Your task to perform on an android device: Open notification settings Image 0: 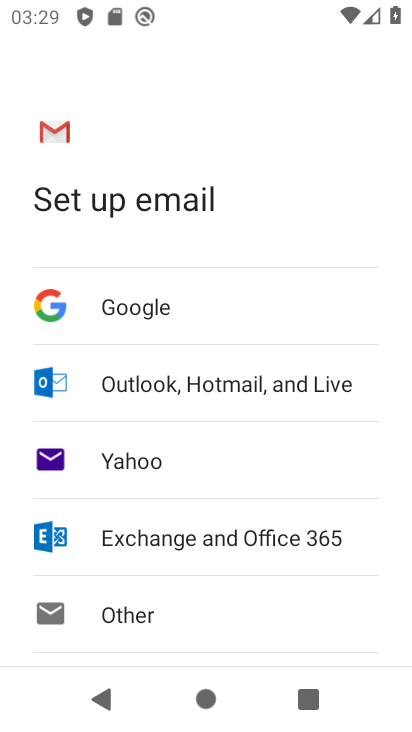
Step 0: press home button
Your task to perform on an android device: Open notification settings Image 1: 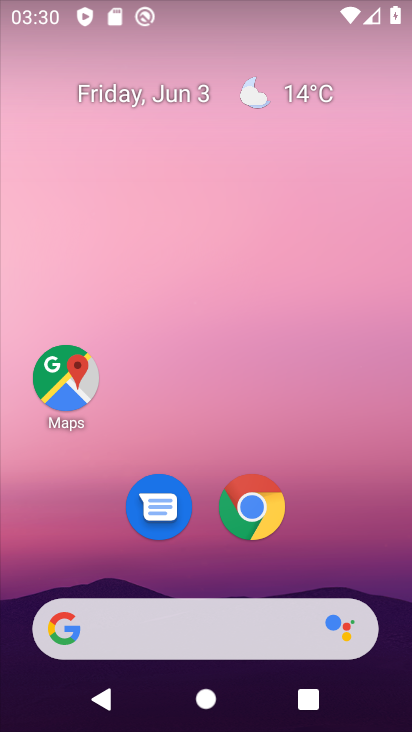
Step 1: drag from (237, 581) to (275, 218)
Your task to perform on an android device: Open notification settings Image 2: 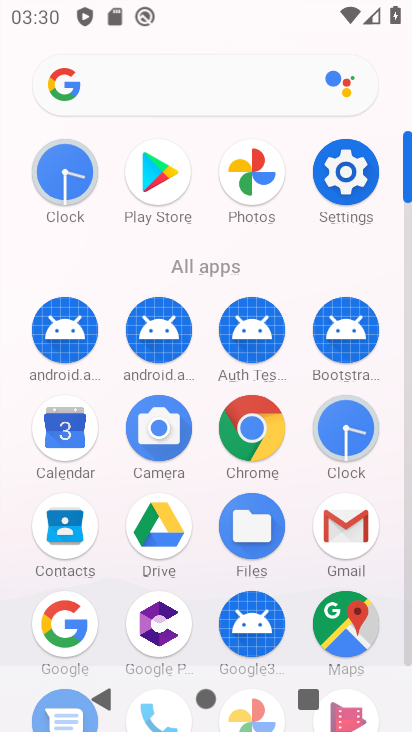
Step 2: click (348, 184)
Your task to perform on an android device: Open notification settings Image 3: 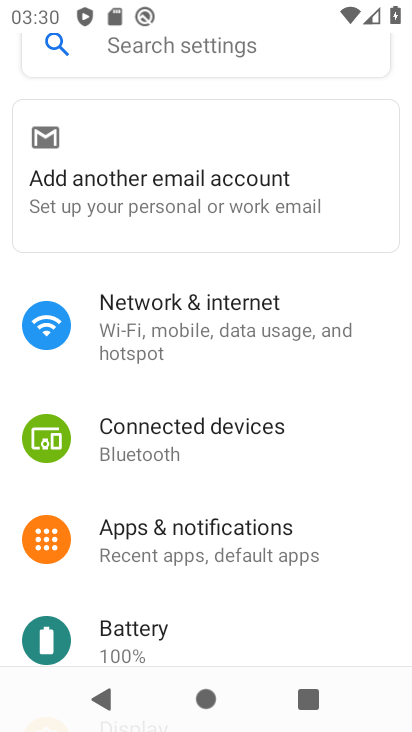
Step 3: click (173, 539)
Your task to perform on an android device: Open notification settings Image 4: 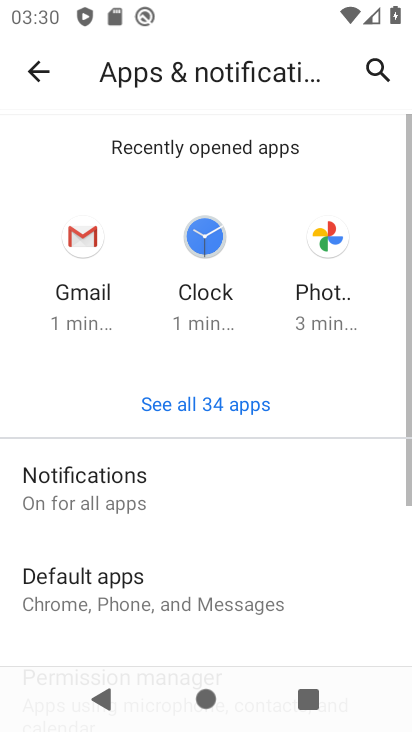
Step 4: click (81, 467)
Your task to perform on an android device: Open notification settings Image 5: 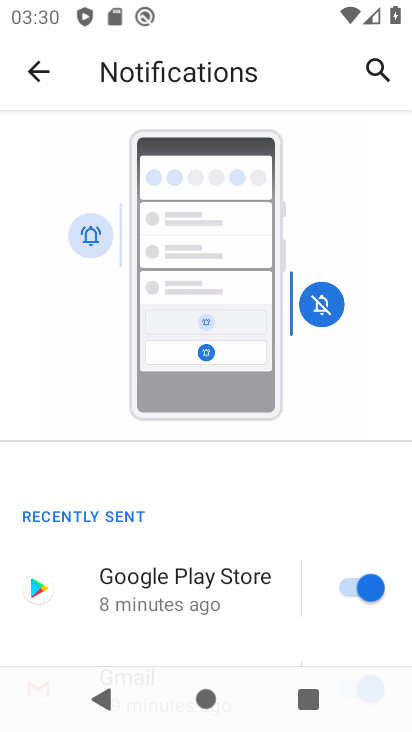
Step 5: task complete